Your task to perform on an android device: Do I have any events tomorrow? Image 0: 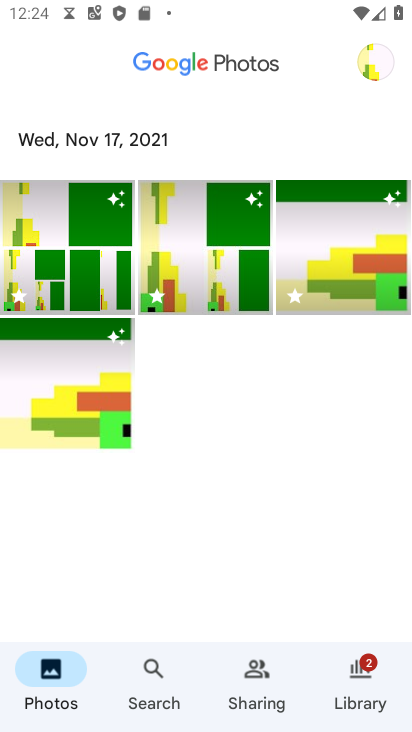
Step 0: press home button
Your task to perform on an android device: Do I have any events tomorrow? Image 1: 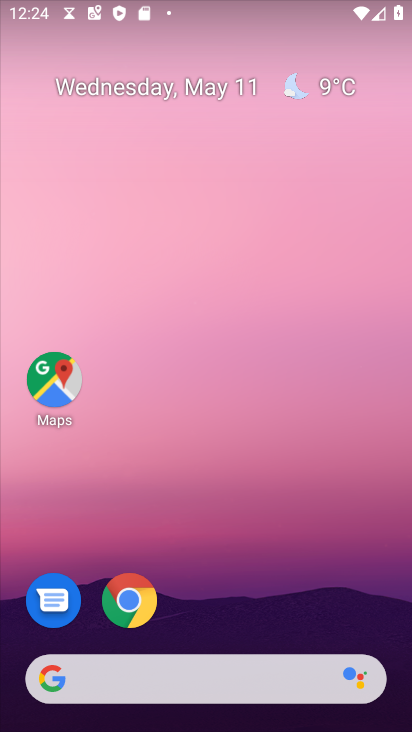
Step 1: drag from (277, 391) to (215, 17)
Your task to perform on an android device: Do I have any events tomorrow? Image 2: 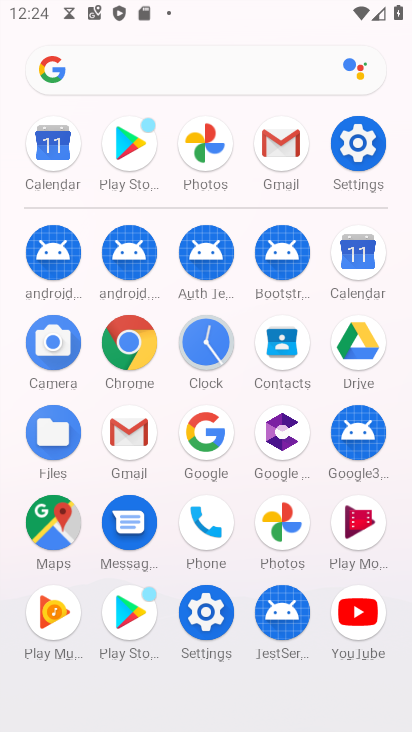
Step 2: click (350, 246)
Your task to perform on an android device: Do I have any events tomorrow? Image 3: 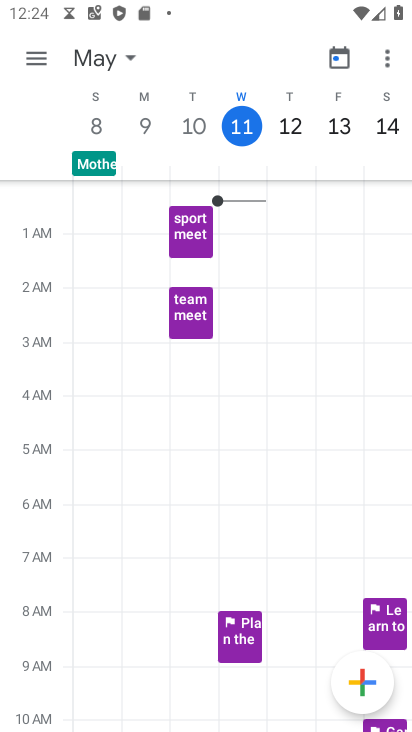
Step 3: task complete